Your task to perform on an android device: delete the emails in spam in the gmail app Image 0: 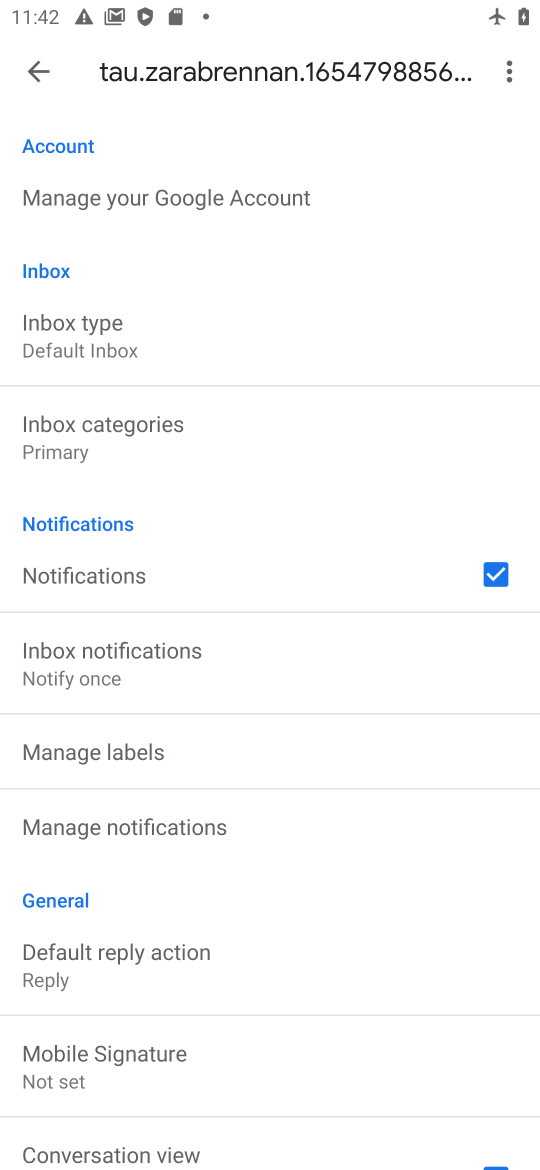
Step 0: click (403, 437)
Your task to perform on an android device: delete the emails in spam in the gmail app Image 1: 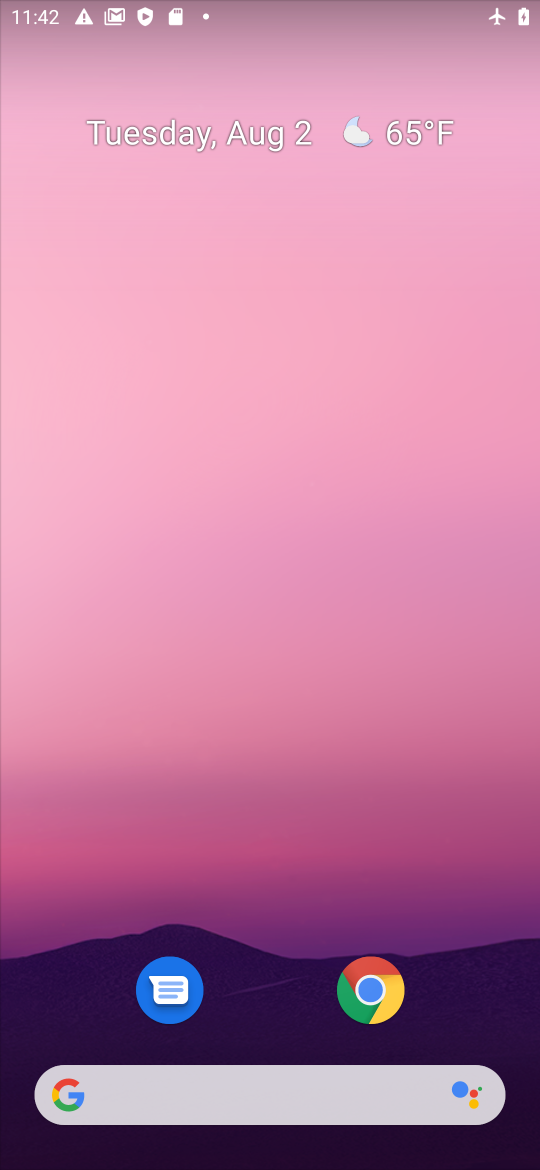
Step 1: drag from (287, 1016) to (274, 340)
Your task to perform on an android device: delete the emails in spam in the gmail app Image 2: 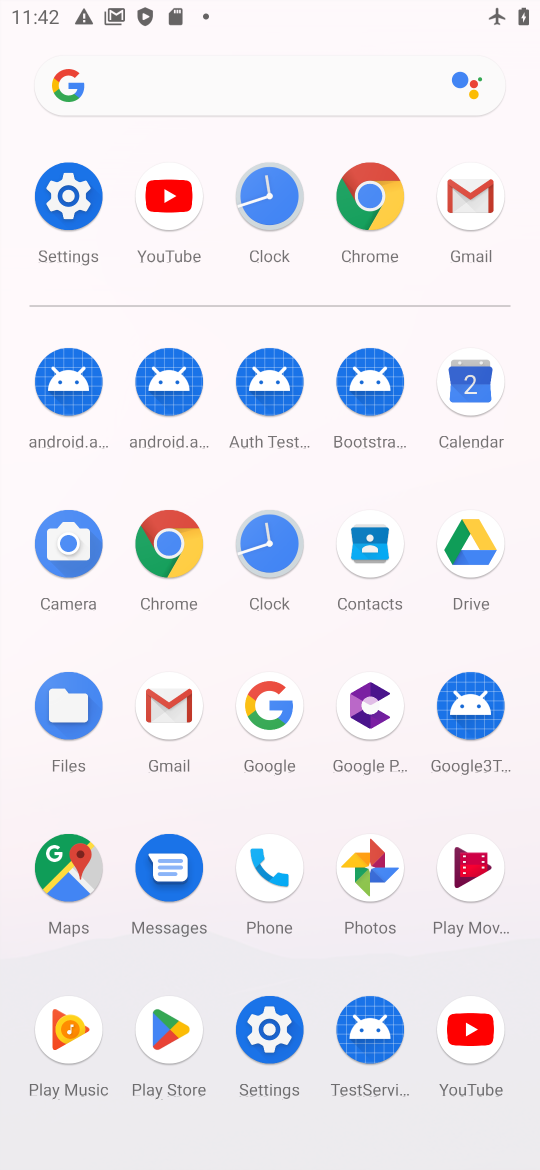
Step 2: click (174, 719)
Your task to perform on an android device: delete the emails in spam in the gmail app Image 3: 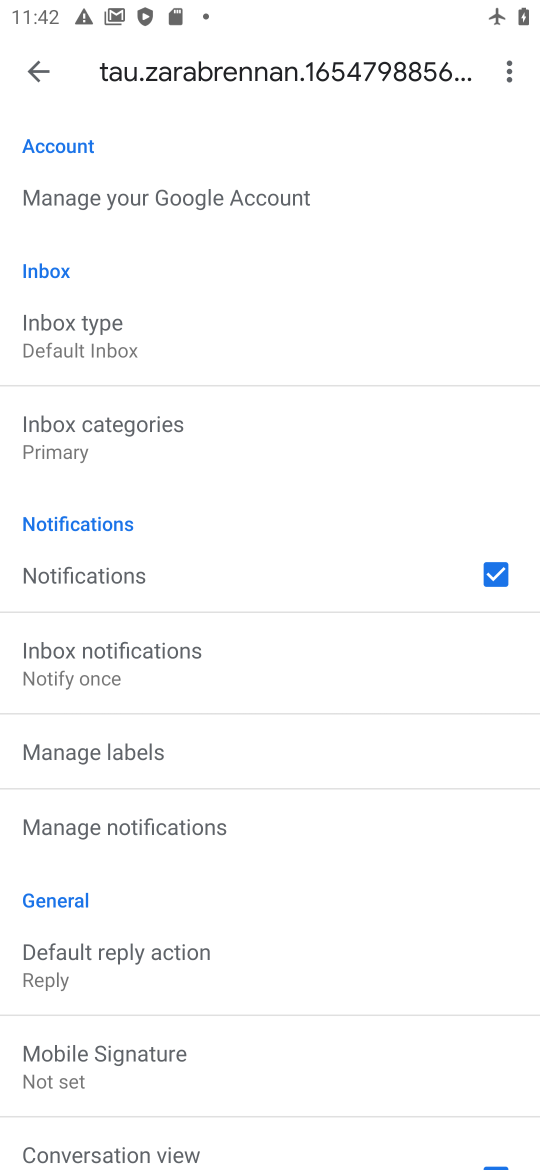
Step 3: click (28, 53)
Your task to perform on an android device: delete the emails in spam in the gmail app Image 4: 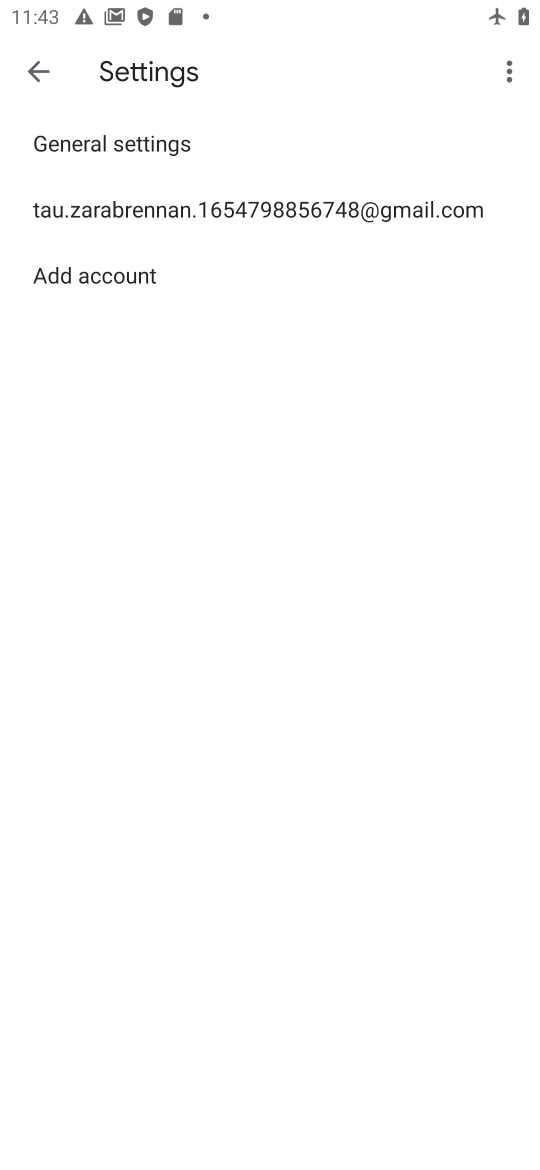
Step 4: click (33, 58)
Your task to perform on an android device: delete the emails in spam in the gmail app Image 5: 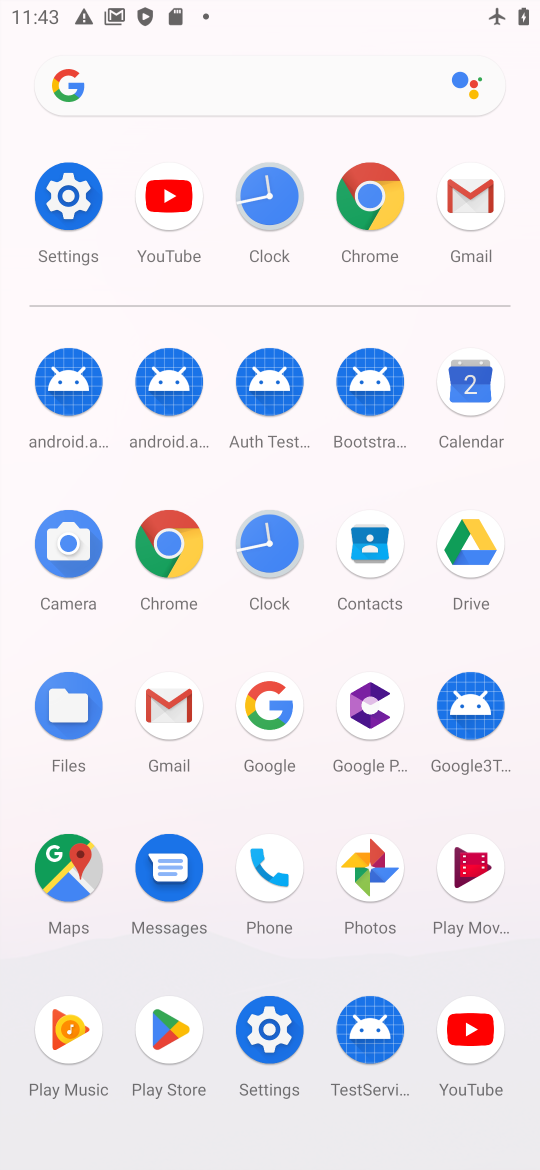
Step 5: click (164, 723)
Your task to perform on an android device: delete the emails in spam in the gmail app Image 6: 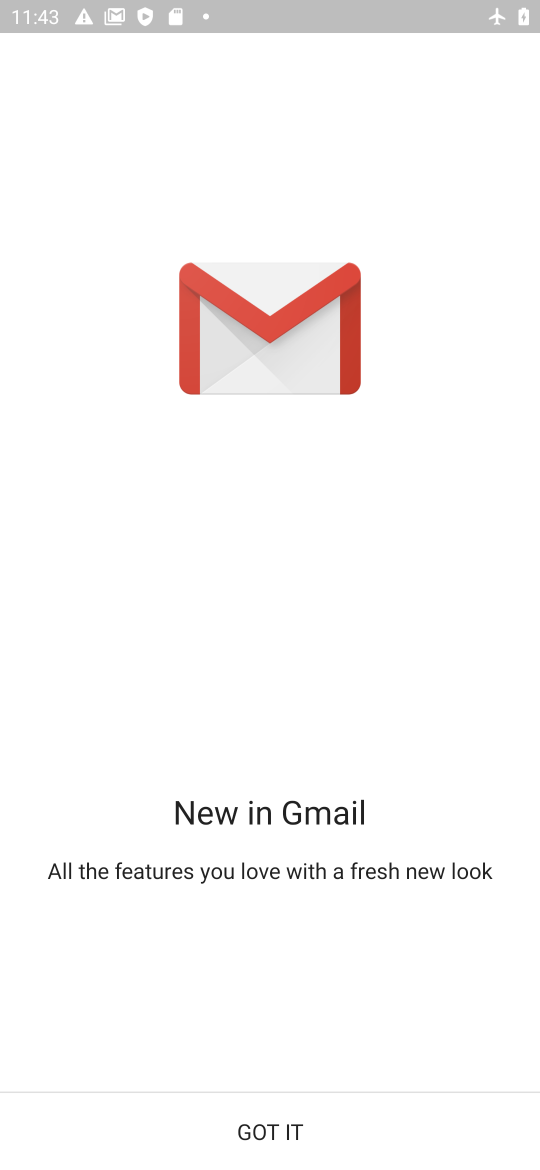
Step 6: click (300, 1126)
Your task to perform on an android device: delete the emails in spam in the gmail app Image 7: 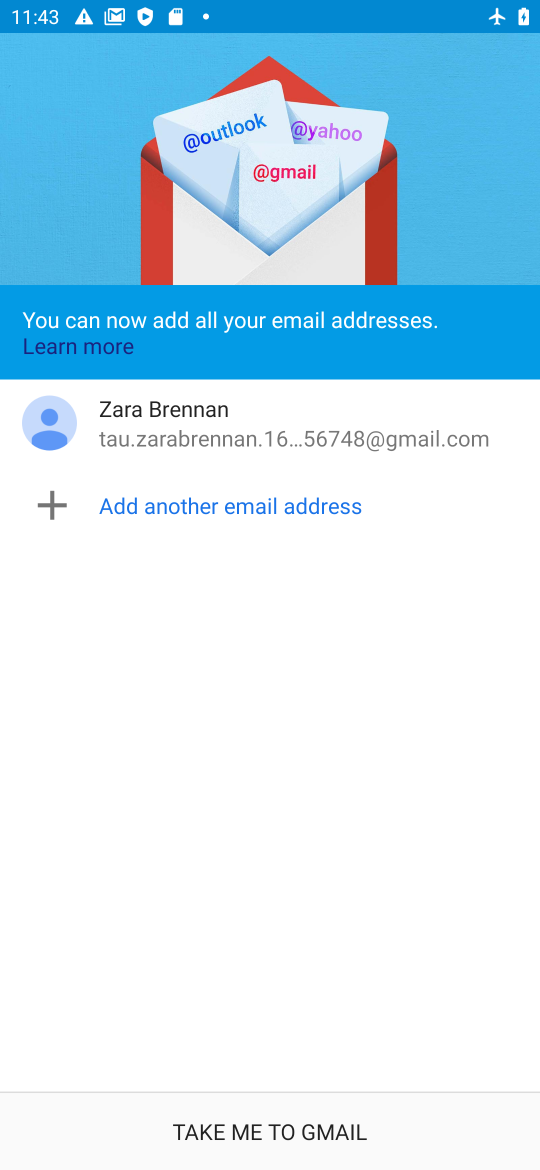
Step 7: click (311, 1136)
Your task to perform on an android device: delete the emails in spam in the gmail app Image 8: 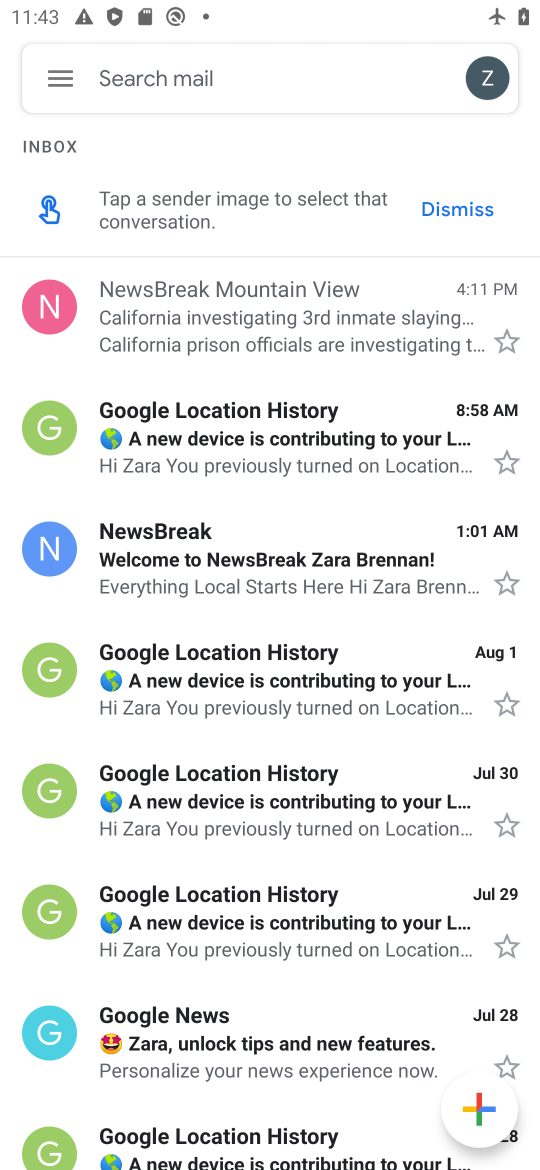
Step 8: click (295, 1131)
Your task to perform on an android device: delete the emails in spam in the gmail app Image 9: 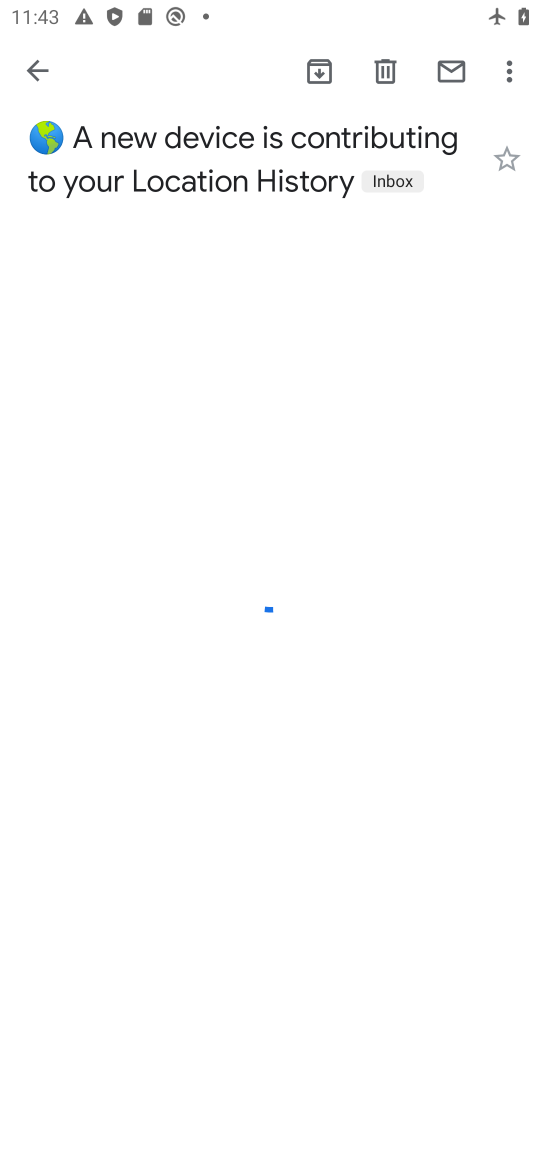
Step 9: click (44, 67)
Your task to perform on an android device: delete the emails in spam in the gmail app Image 10: 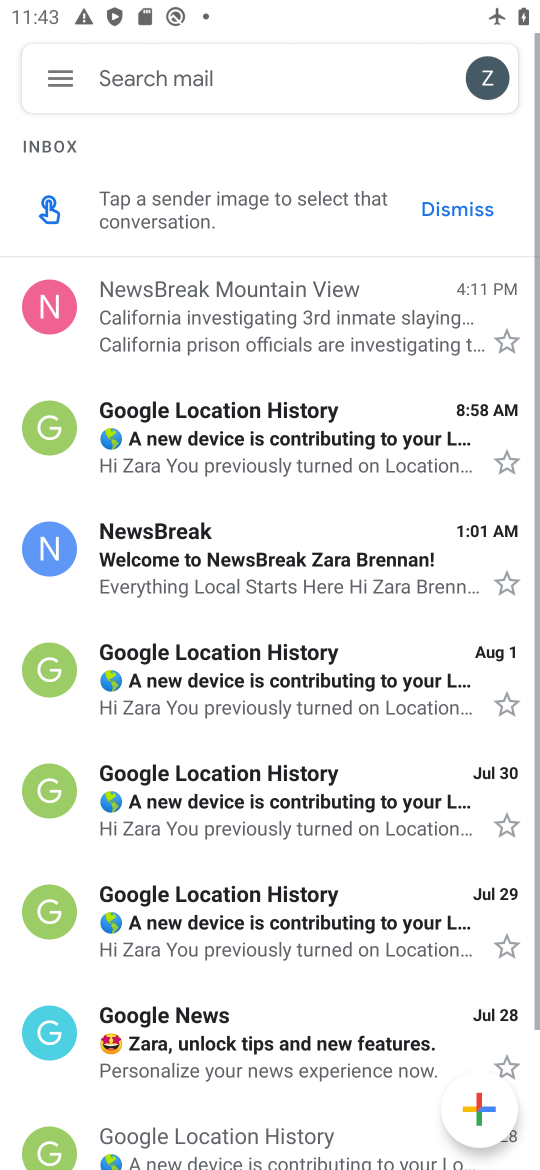
Step 10: click (32, 68)
Your task to perform on an android device: delete the emails in spam in the gmail app Image 11: 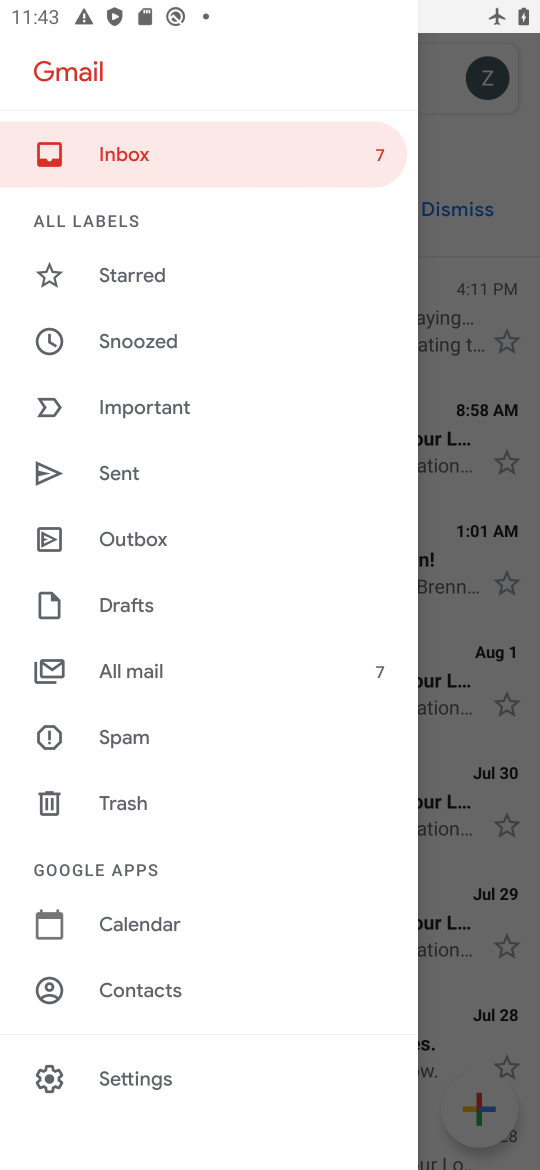
Step 11: click (150, 728)
Your task to perform on an android device: delete the emails in spam in the gmail app Image 12: 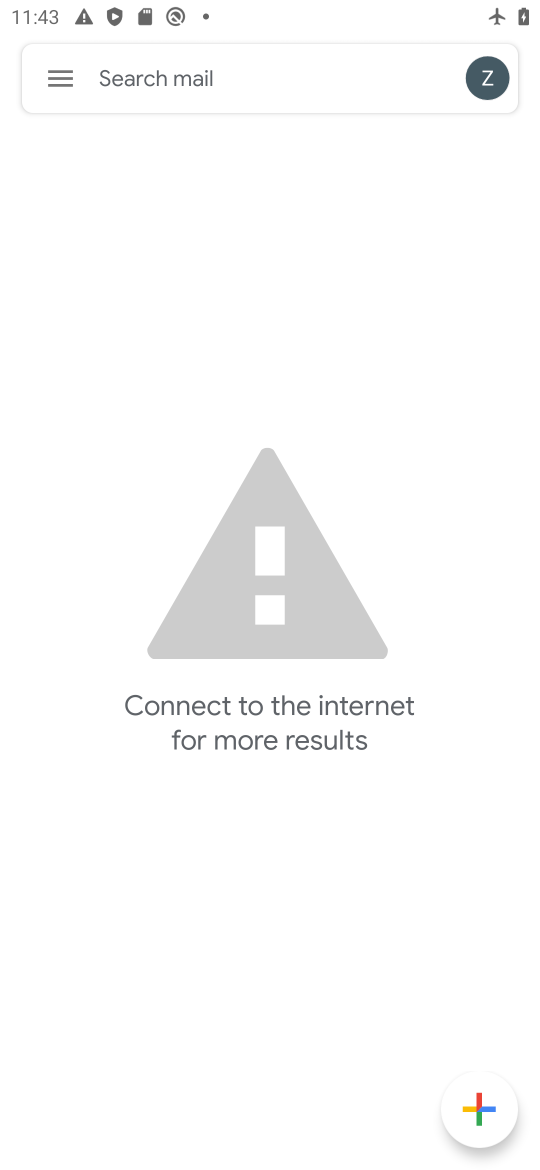
Step 12: task complete